Your task to perform on an android device: Clear the shopping cart on target.com. Image 0: 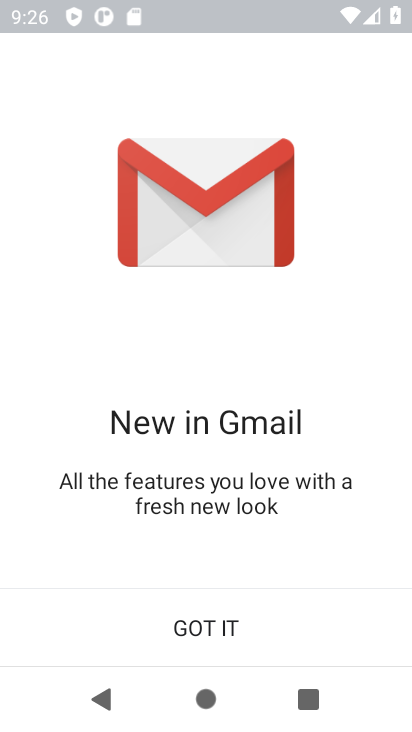
Step 0: press home button
Your task to perform on an android device: Clear the shopping cart on target.com. Image 1: 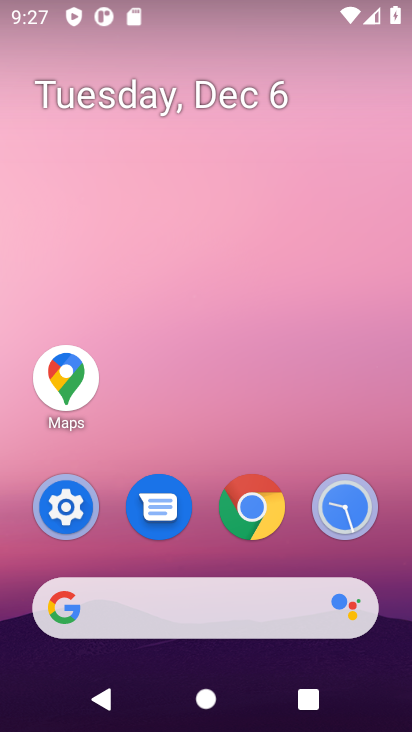
Step 1: click (123, 615)
Your task to perform on an android device: Clear the shopping cart on target.com. Image 2: 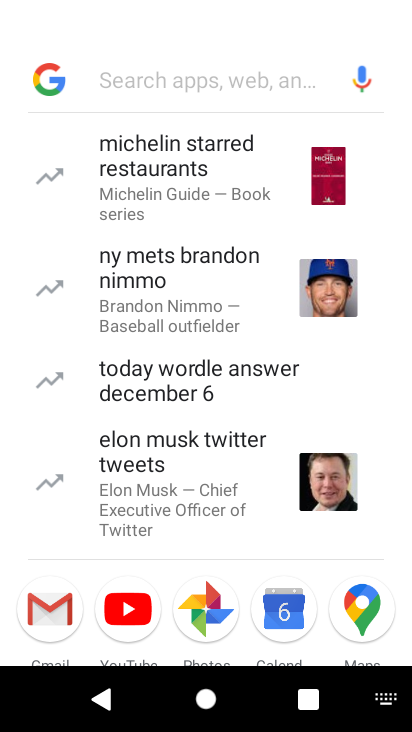
Step 2: type "target.com."
Your task to perform on an android device: Clear the shopping cart on target.com. Image 3: 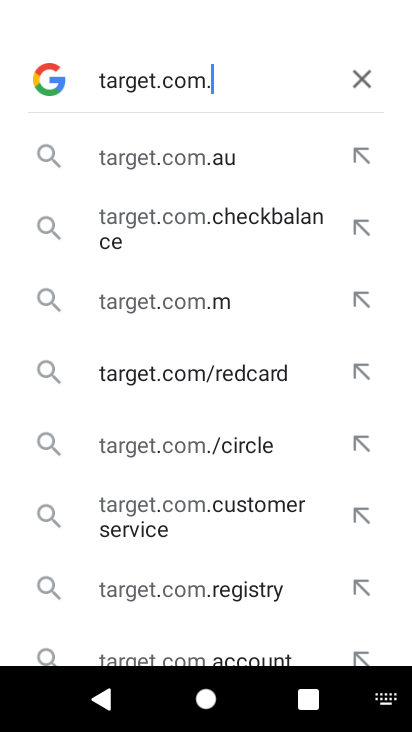
Step 3: press enter
Your task to perform on an android device: Clear the shopping cart on target.com. Image 4: 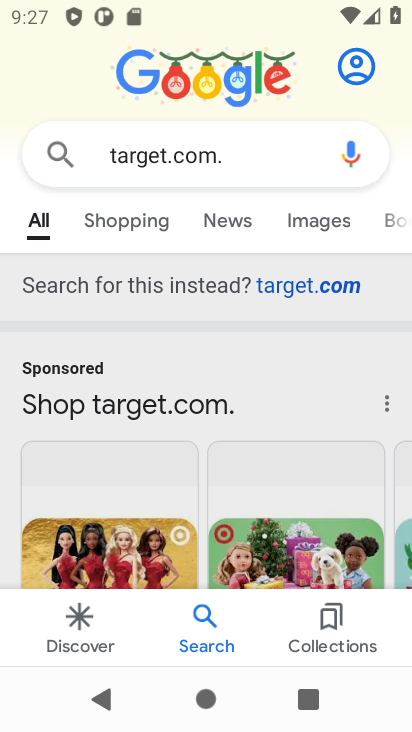
Step 4: drag from (274, 516) to (267, 208)
Your task to perform on an android device: Clear the shopping cart on target.com. Image 5: 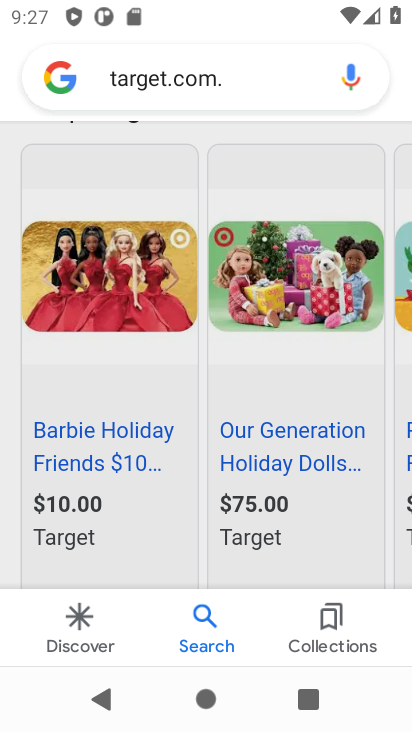
Step 5: drag from (204, 507) to (231, 204)
Your task to perform on an android device: Clear the shopping cart on target.com. Image 6: 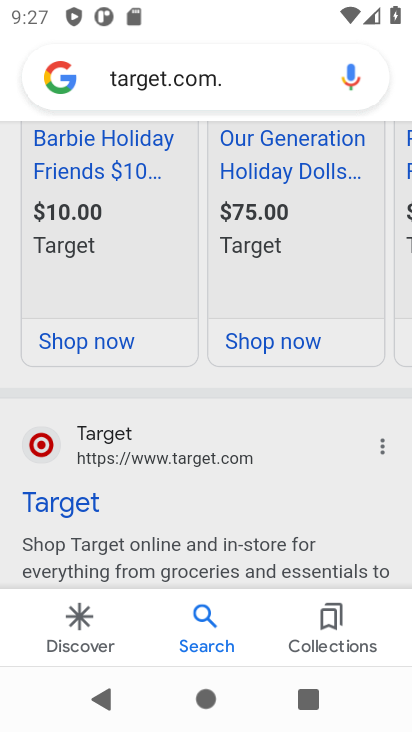
Step 6: click (62, 508)
Your task to perform on an android device: Clear the shopping cart on target.com. Image 7: 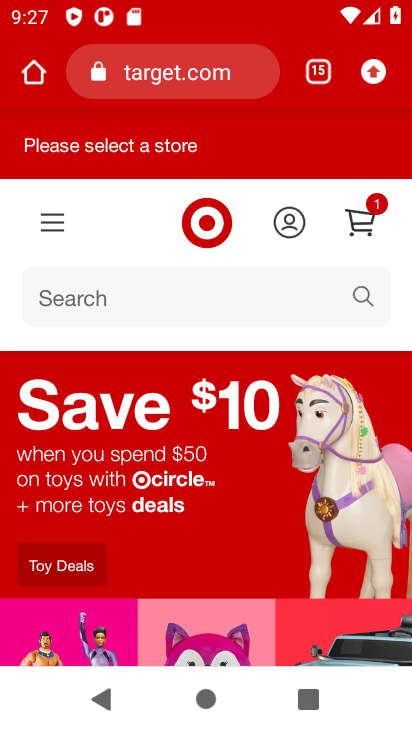
Step 7: click (362, 217)
Your task to perform on an android device: Clear the shopping cart on target.com. Image 8: 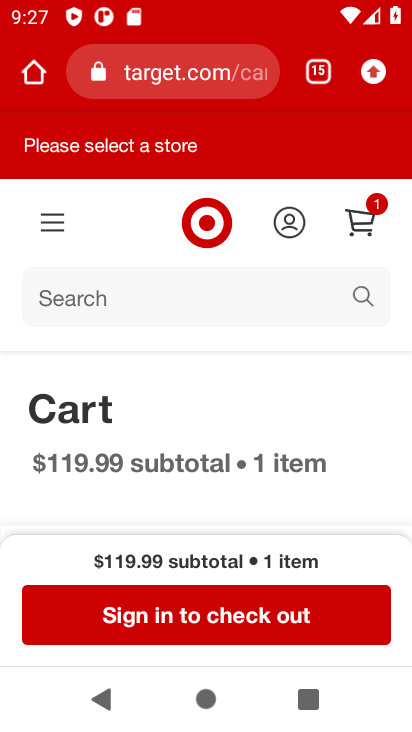
Step 8: drag from (205, 480) to (204, 262)
Your task to perform on an android device: Clear the shopping cart on target.com. Image 9: 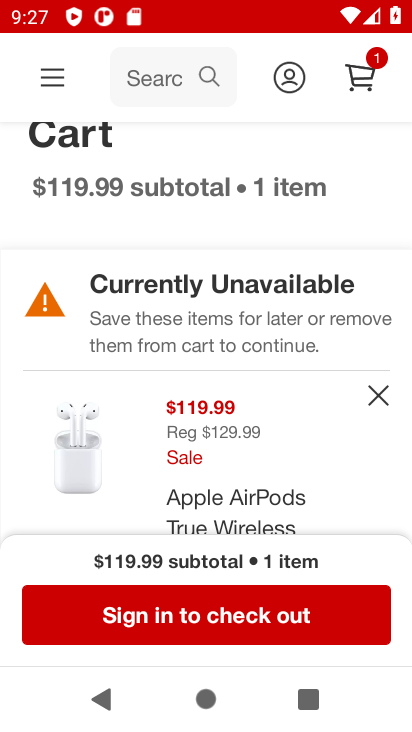
Step 9: drag from (189, 352) to (196, 178)
Your task to perform on an android device: Clear the shopping cart on target.com. Image 10: 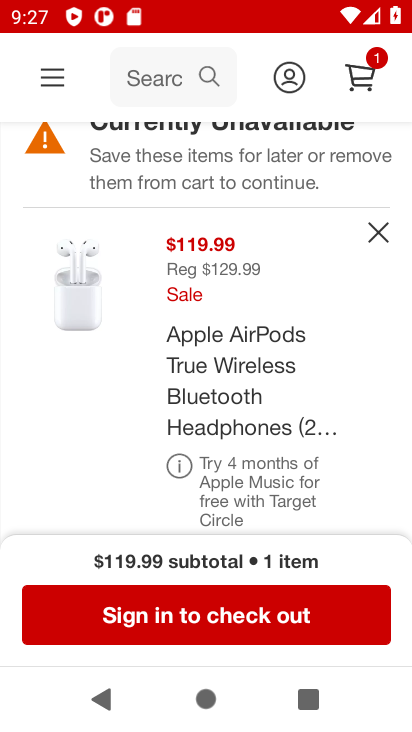
Step 10: drag from (133, 460) to (165, 215)
Your task to perform on an android device: Clear the shopping cart on target.com. Image 11: 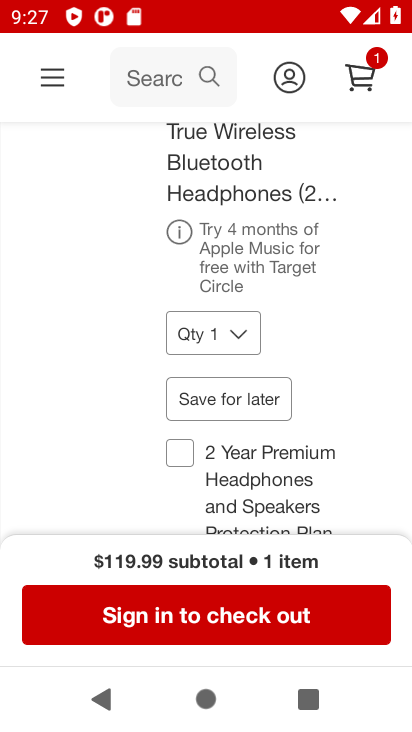
Step 11: drag from (141, 190) to (104, 455)
Your task to perform on an android device: Clear the shopping cart on target.com. Image 12: 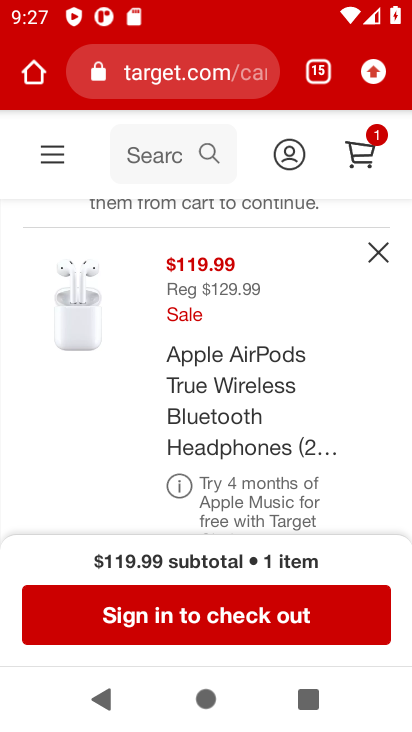
Step 12: click (379, 254)
Your task to perform on an android device: Clear the shopping cart on target.com. Image 13: 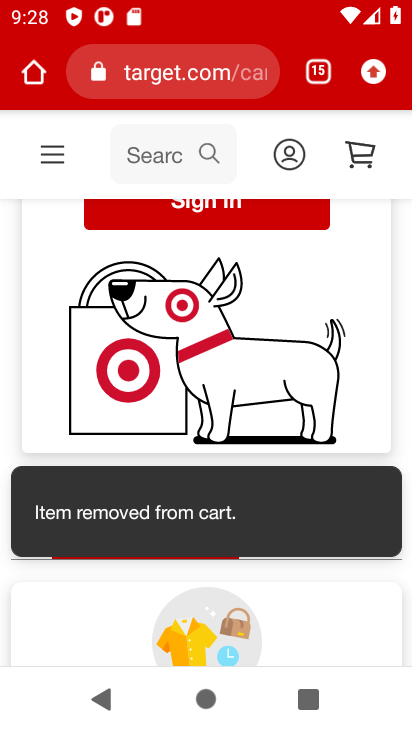
Step 13: task complete